Your task to perform on an android device: Open settings Image 0: 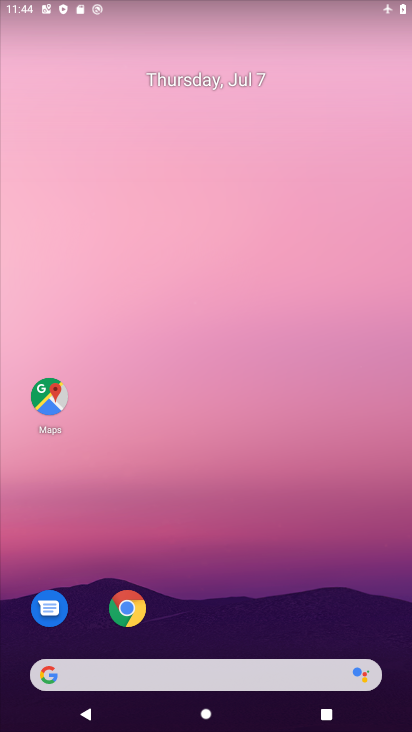
Step 0: click (262, 134)
Your task to perform on an android device: Open settings Image 1: 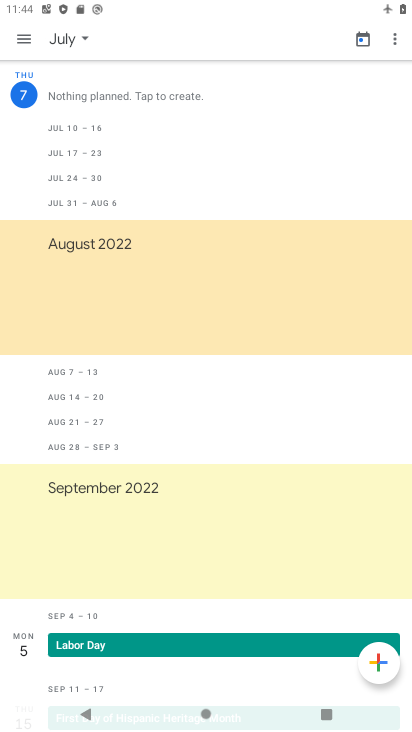
Step 1: press home button
Your task to perform on an android device: Open settings Image 2: 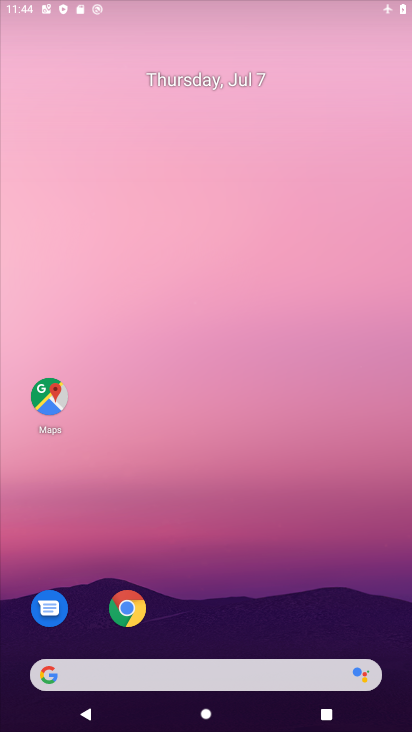
Step 2: drag from (188, 662) to (249, 98)
Your task to perform on an android device: Open settings Image 3: 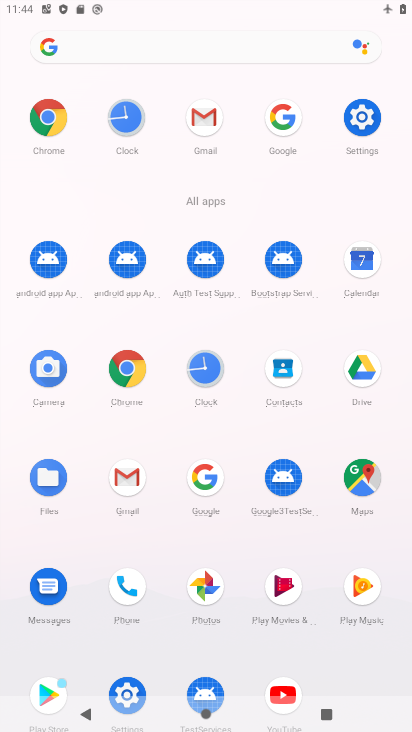
Step 3: click (139, 686)
Your task to perform on an android device: Open settings Image 4: 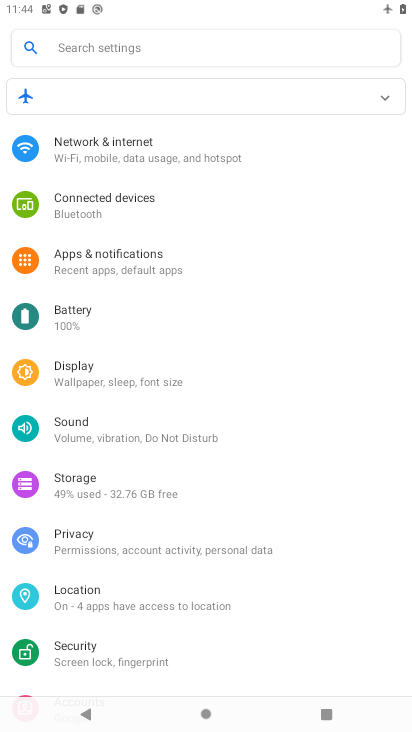
Step 4: task complete